Your task to perform on an android device: Play the last video I watched on Youtube Image 0: 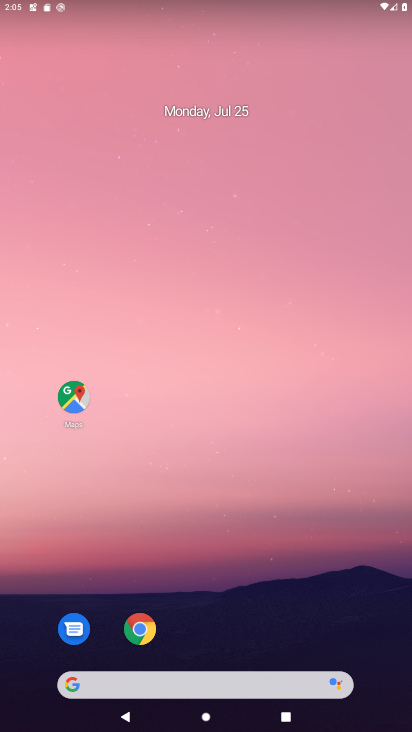
Step 0: drag from (258, 578) to (143, 16)
Your task to perform on an android device: Play the last video I watched on Youtube Image 1: 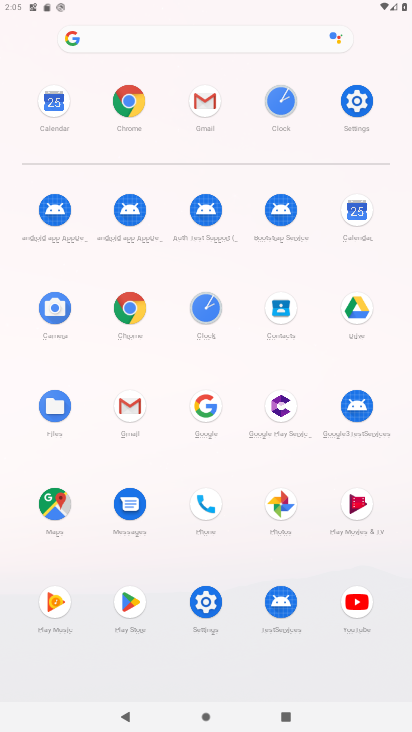
Step 1: click (374, 614)
Your task to perform on an android device: Play the last video I watched on Youtube Image 2: 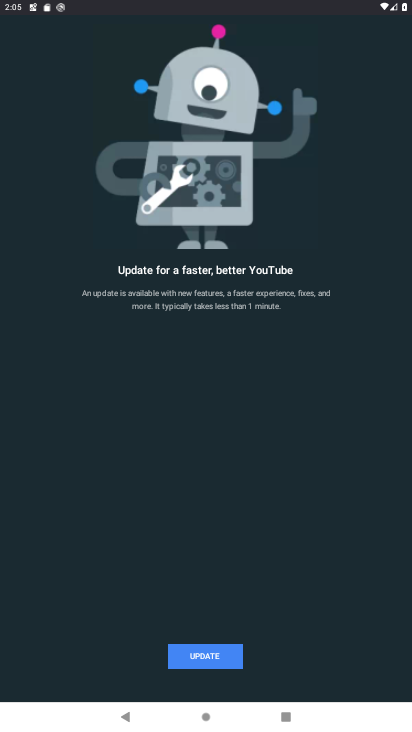
Step 2: click (202, 655)
Your task to perform on an android device: Play the last video I watched on Youtube Image 3: 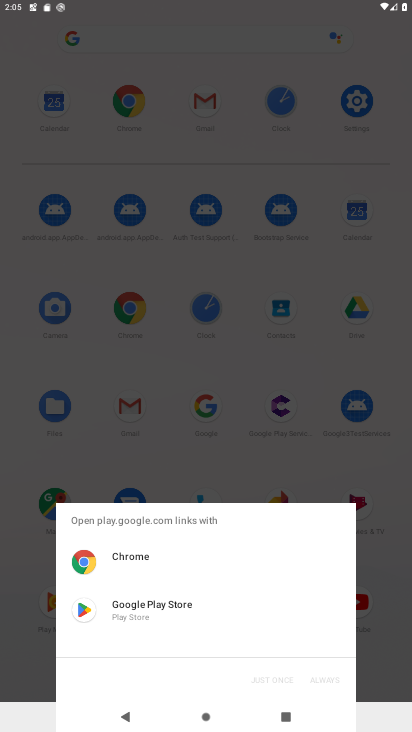
Step 3: click (157, 624)
Your task to perform on an android device: Play the last video I watched on Youtube Image 4: 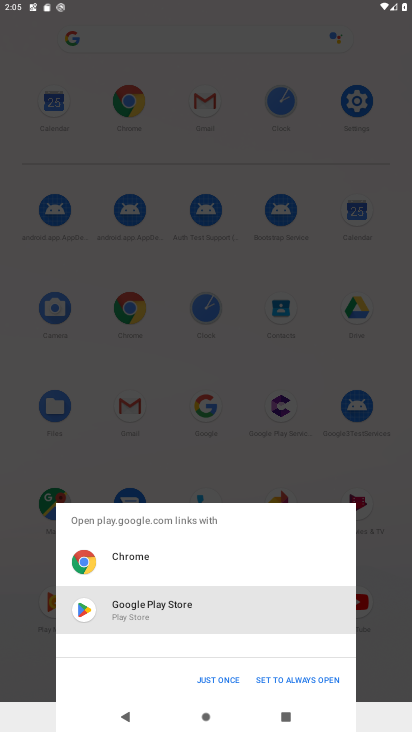
Step 4: click (203, 677)
Your task to perform on an android device: Play the last video I watched on Youtube Image 5: 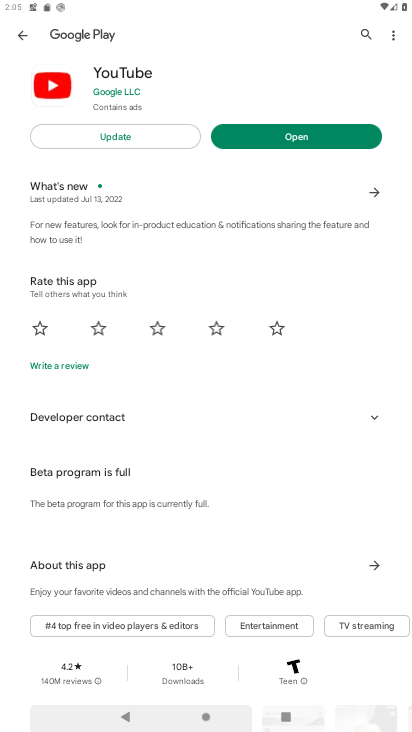
Step 5: click (138, 133)
Your task to perform on an android device: Play the last video I watched on Youtube Image 6: 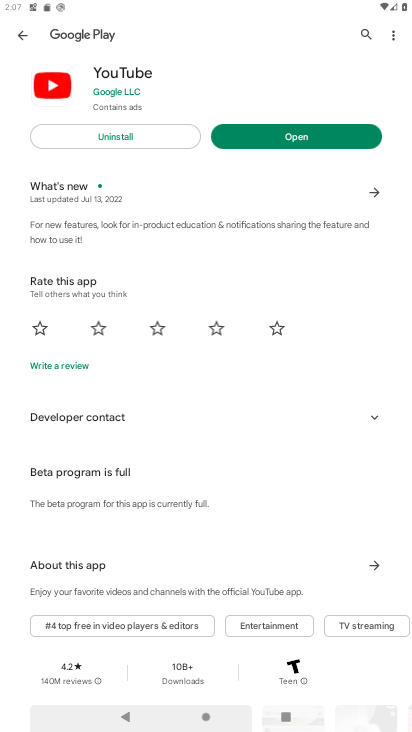
Step 6: click (302, 139)
Your task to perform on an android device: Play the last video I watched on Youtube Image 7: 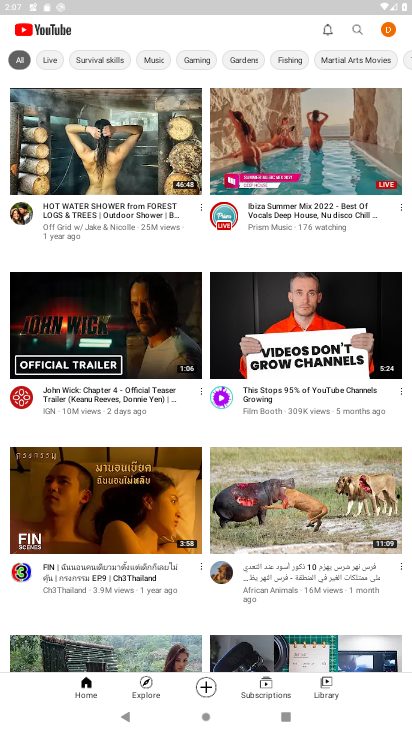
Step 7: click (328, 690)
Your task to perform on an android device: Play the last video I watched on Youtube Image 8: 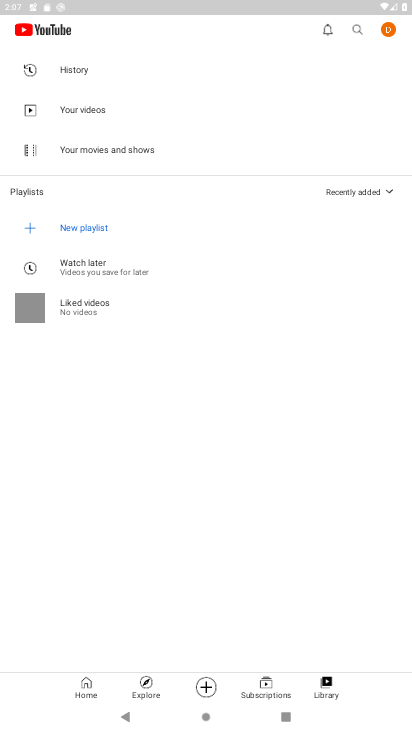
Step 8: click (62, 70)
Your task to perform on an android device: Play the last video I watched on Youtube Image 9: 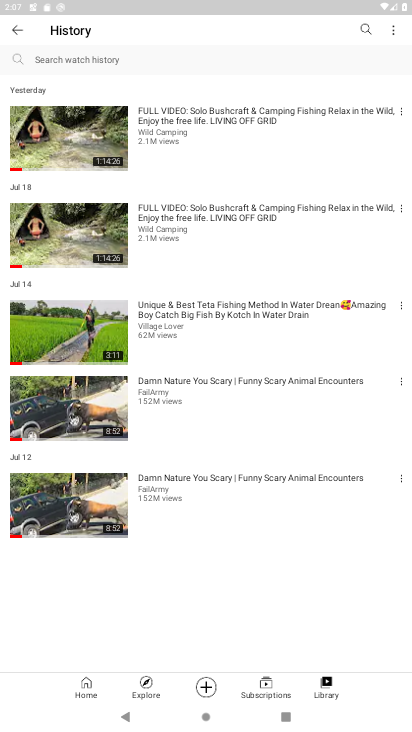
Step 9: click (71, 134)
Your task to perform on an android device: Play the last video I watched on Youtube Image 10: 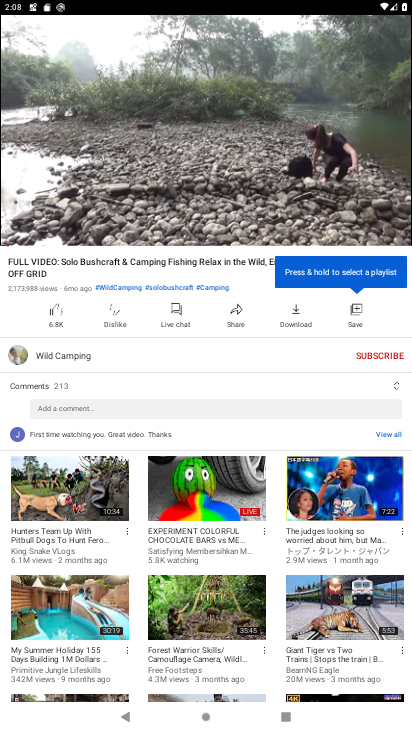
Step 10: task complete